Your task to perform on an android device: Search for vegetarian restaurants on Maps Image 0: 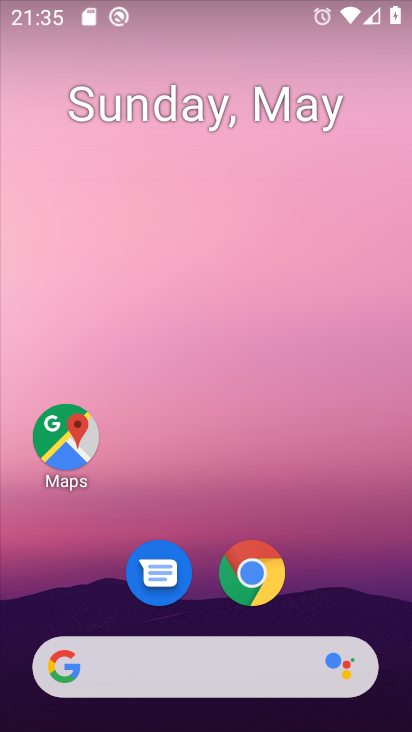
Step 0: click (71, 433)
Your task to perform on an android device: Search for vegetarian restaurants on Maps Image 1: 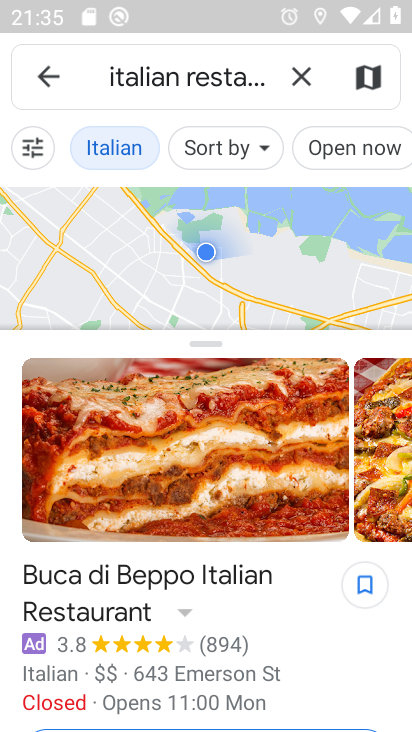
Step 1: click (298, 71)
Your task to perform on an android device: Search for vegetarian restaurants on Maps Image 2: 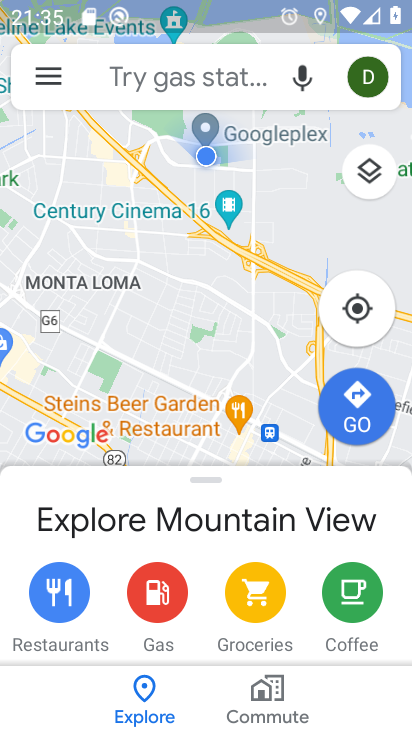
Step 2: click (180, 75)
Your task to perform on an android device: Search for vegetarian restaurants on Maps Image 3: 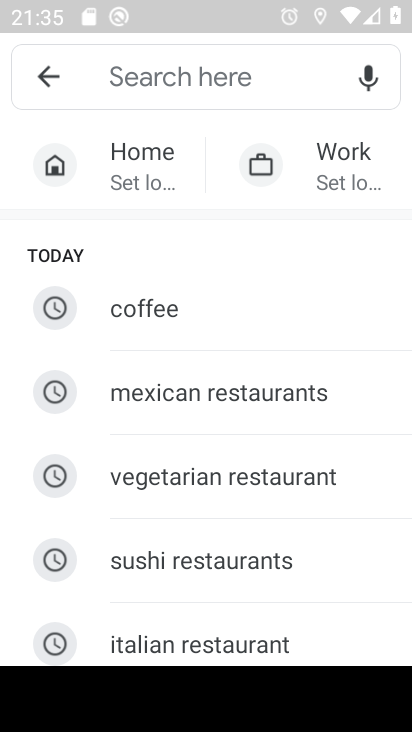
Step 3: click (198, 471)
Your task to perform on an android device: Search for vegetarian restaurants on Maps Image 4: 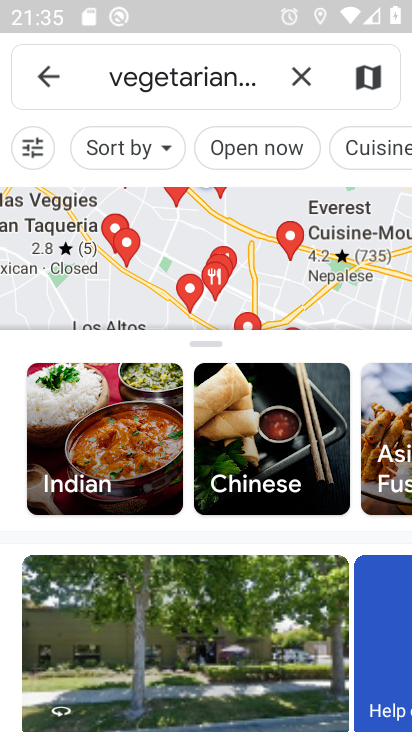
Step 4: task complete